Your task to perform on an android device: Open the web browser Image 0: 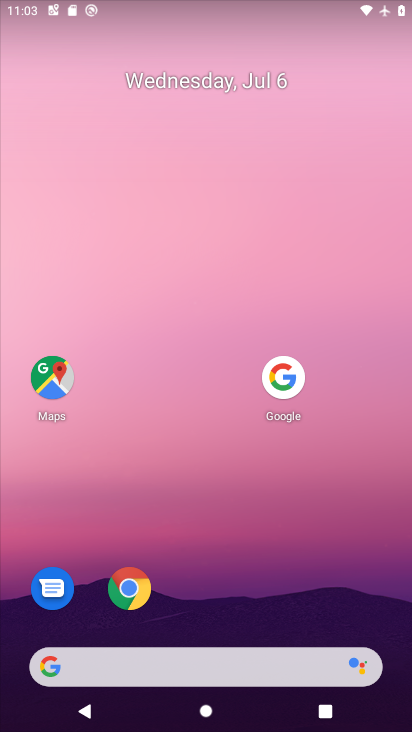
Step 0: click (130, 594)
Your task to perform on an android device: Open the web browser Image 1: 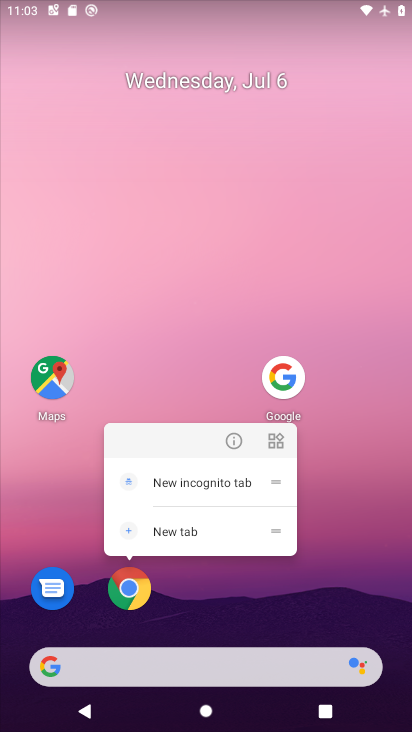
Step 1: click (124, 592)
Your task to perform on an android device: Open the web browser Image 2: 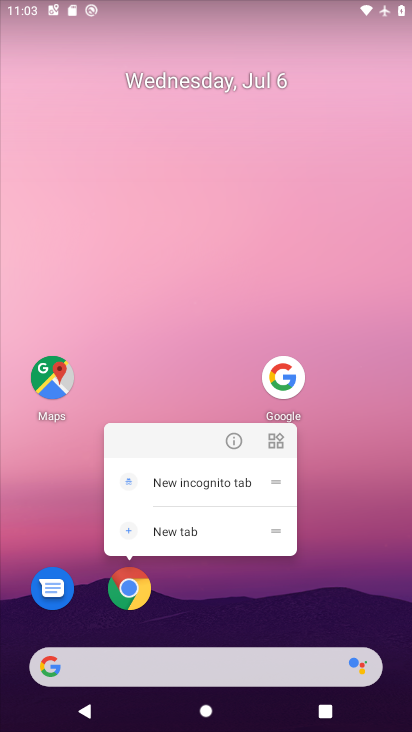
Step 2: click (127, 594)
Your task to perform on an android device: Open the web browser Image 3: 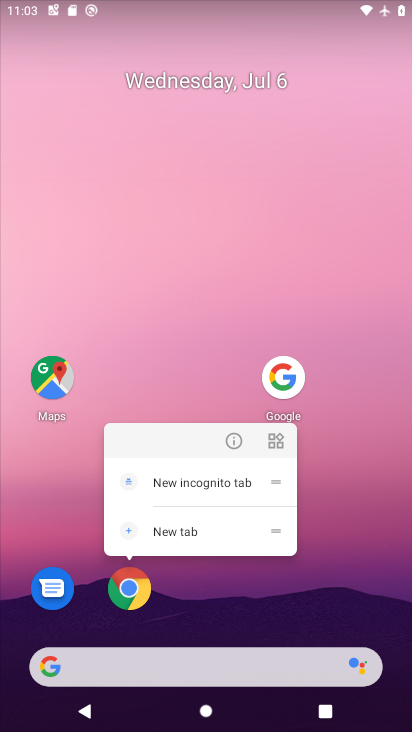
Step 3: click (137, 586)
Your task to perform on an android device: Open the web browser Image 4: 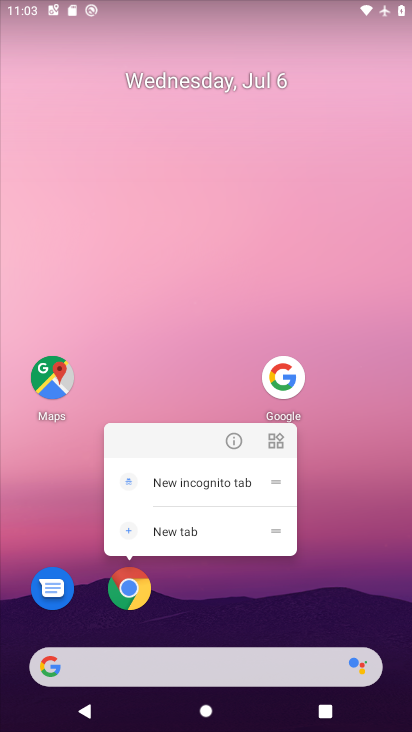
Step 4: click (137, 588)
Your task to perform on an android device: Open the web browser Image 5: 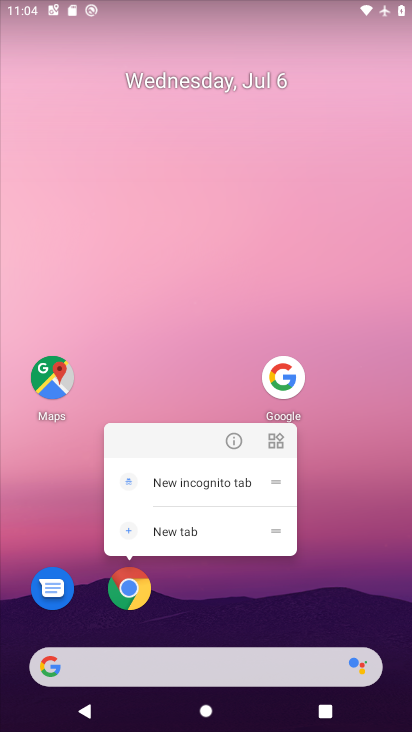
Step 5: click (133, 587)
Your task to perform on an android device: Open the web browser Image 6: 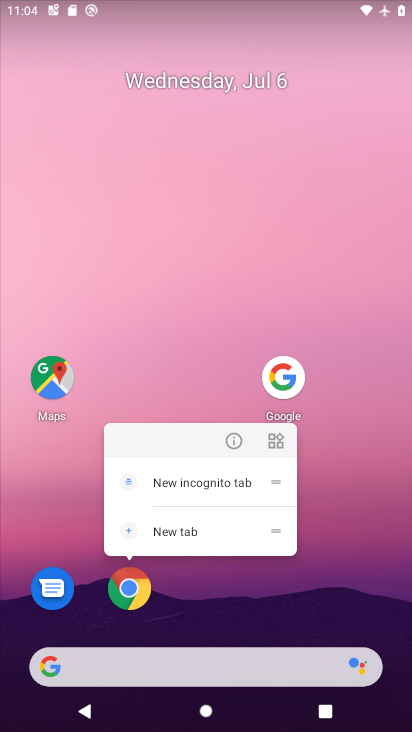
Step 6: click (125, 584)
Your task to perform on an android device: Open the web browser Image 7: 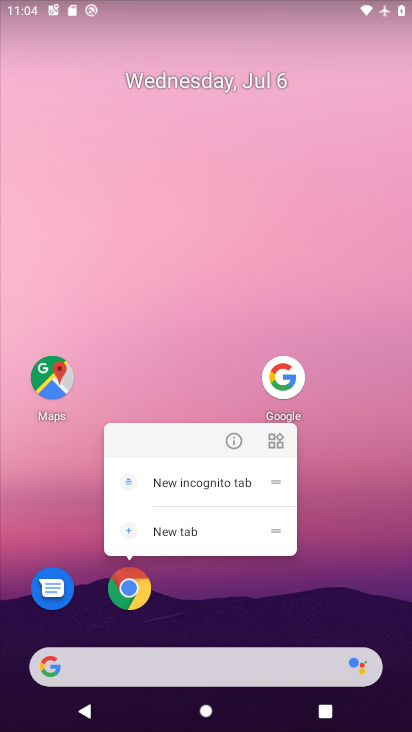
Step 7: click (136, 593)
Your task to perform on an android device: Open the web browser Image 8: 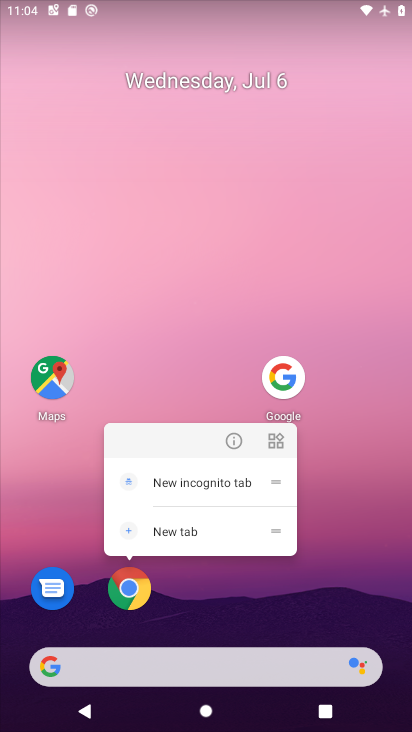
Step 8: click (132, 591)
Your task to perform on an android device: Open the web browser Image 9: 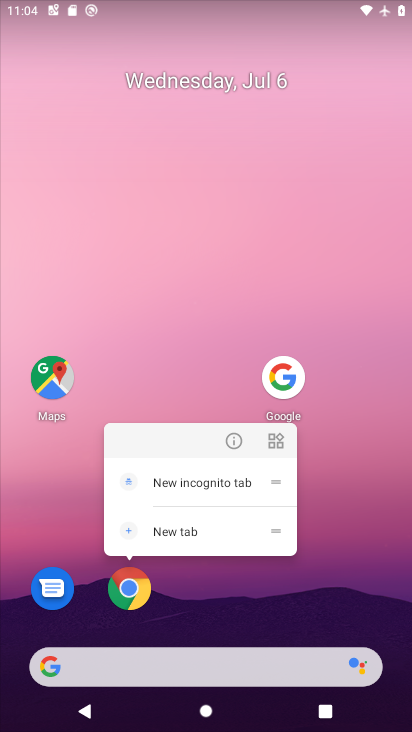
Step 9: click (129, 590)
Your task to perform on an android device: Open the web browser Image 10: 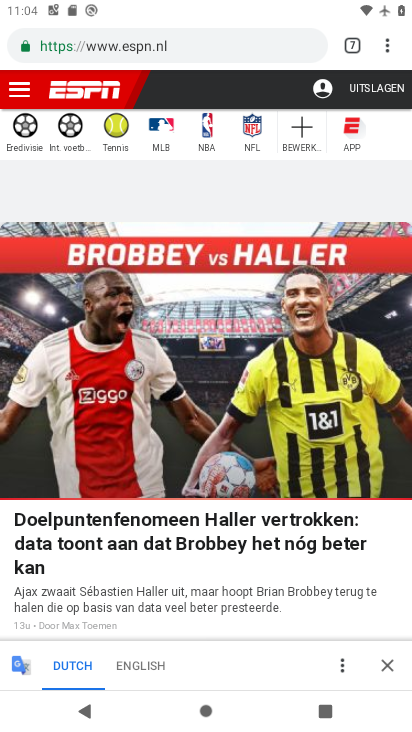
Step 10: task complete